Your task to perform on an android device: See recent photos Image 0: 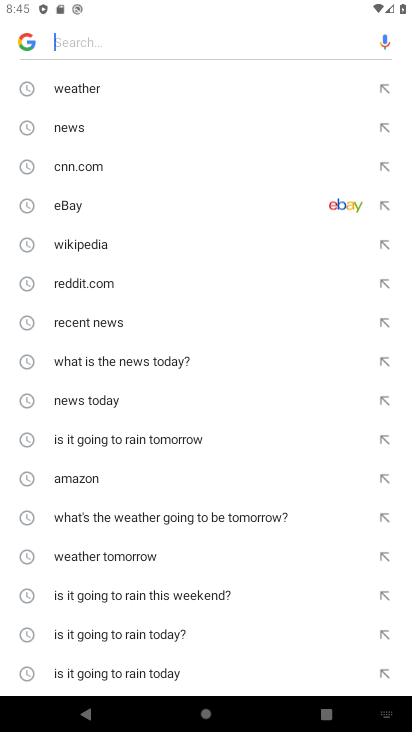
Step 0: press back button
Your task to perform on an android device: See recent photos Image 1: 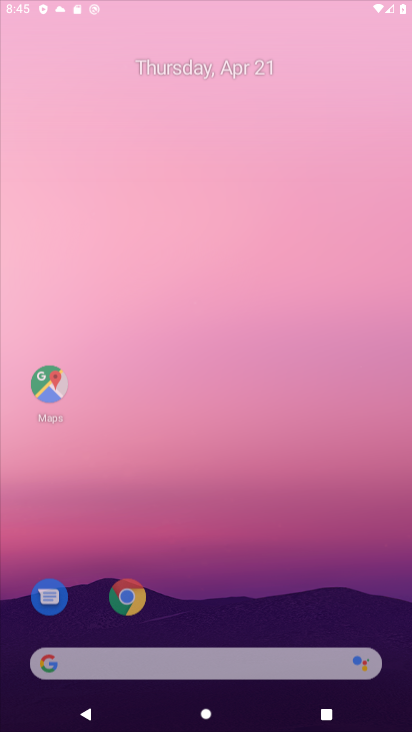
Step 1: press home button
Your task to perform on an android device: See recent photos Image 2: 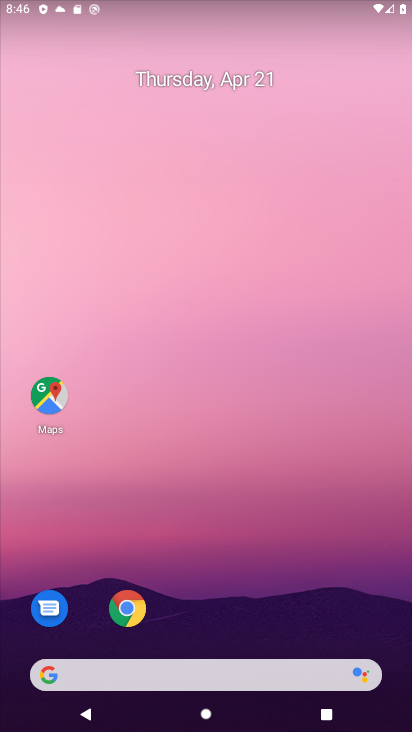
Step 2: drag from (216, 615) to (120, 144)
Your task to perform on an android device: See recent photos Image 3: 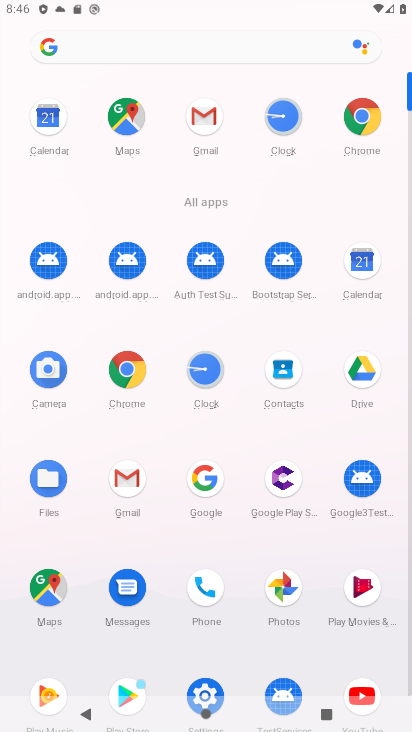
Step 3: click (284, 592)
Your task to perform on an android device: See recent photos Image 4: 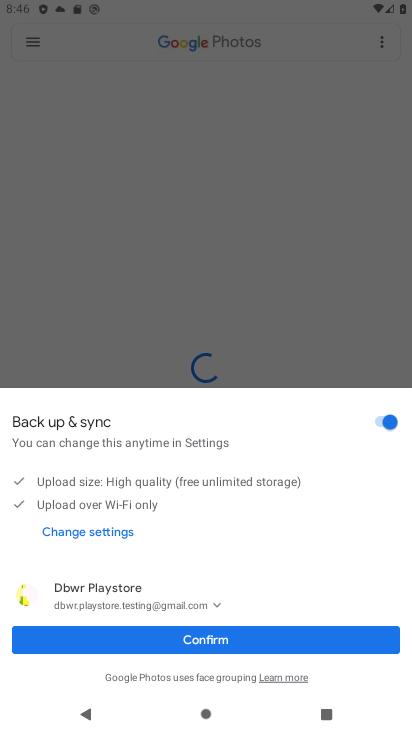
Step 4: click (270, 644)
Your task to perform on an android device: See recent photos Image 5: 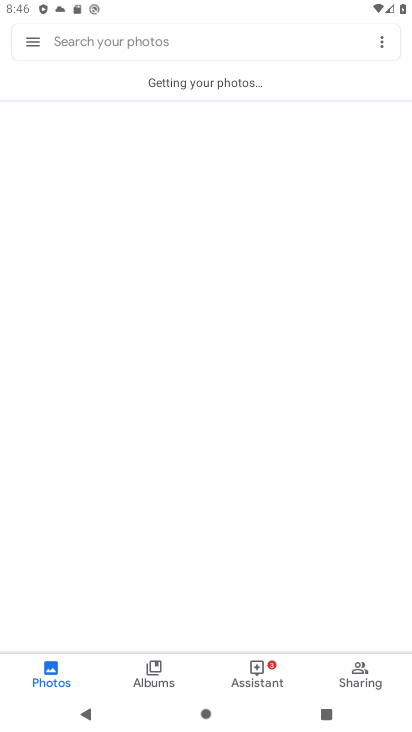
Step 5: task complete